Your task to perform on an android device: toggle data saver in the chrome app Image 0: 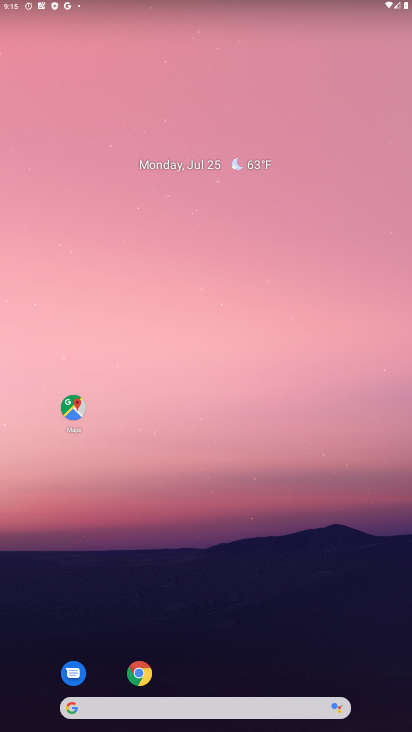
Step 0: drag from (212, 616) to (329, 17)
Your task to perform on an android device: toggle data saver in the chrome app Image 1: 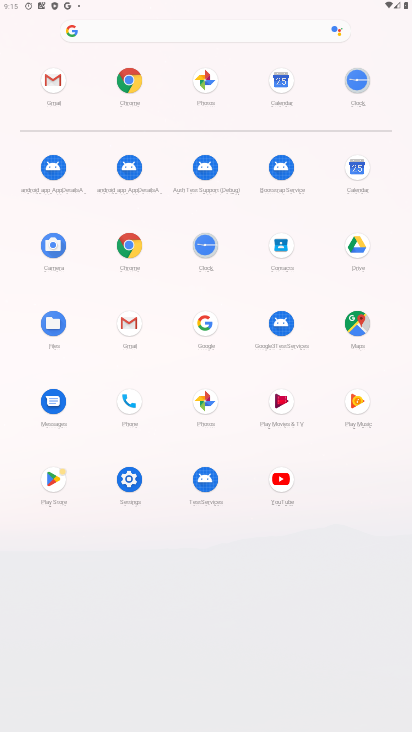
Step 1: click (123, 239)
Your task to perform on an android device: toggle data saver in the chrome app Image 2: 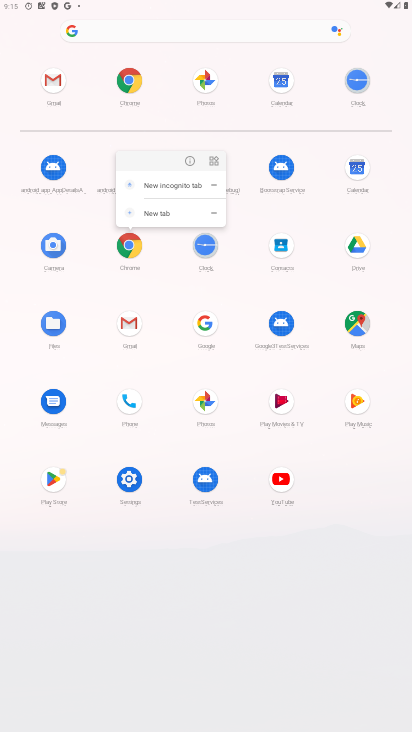
Step 2: click (187, 162)
Your task to perform on an android device: toggle data saver in the chrome app Image 3: 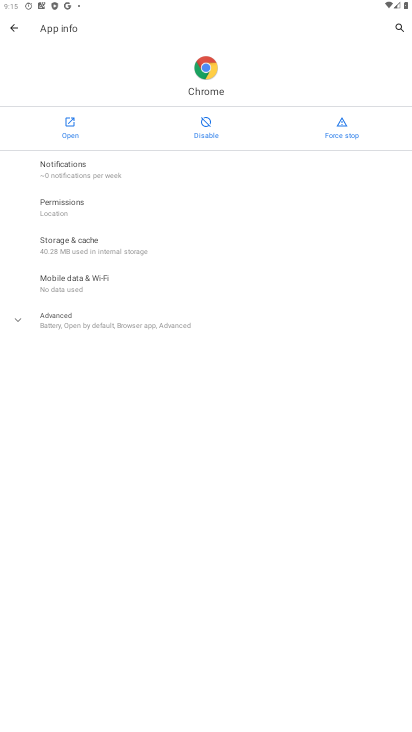
Step 3: click (60, 120)
Your task to perform on an android device: toggle data saver in the chrome app Image 4: 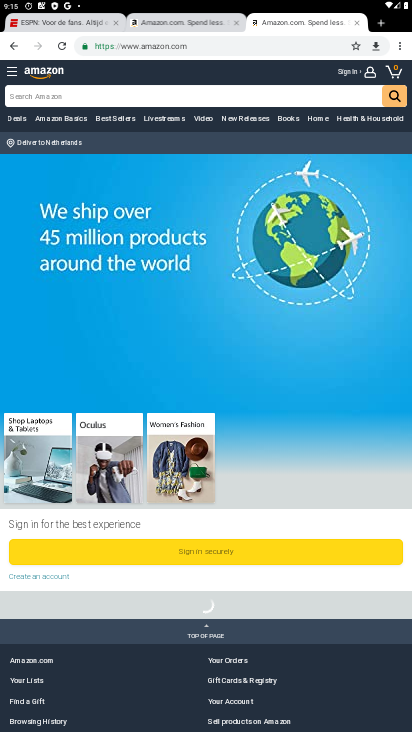
Step 4: drag from (238, 419) to (233, 139)
Your task to perform on an android device: toggle data saver in the chrome app Image 5: 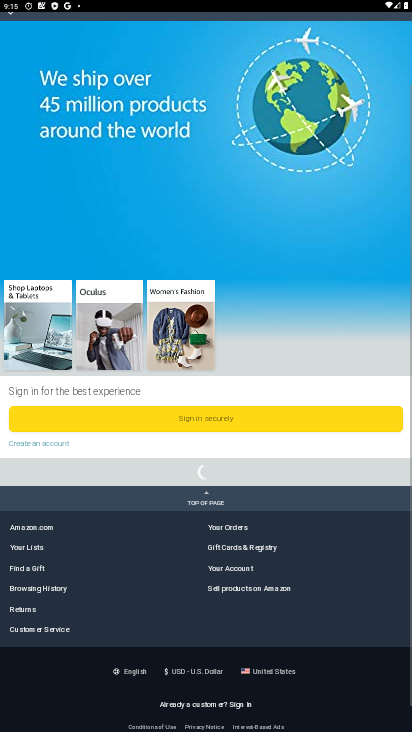
Step 5: drag from (190, 145) to (167, 435)
Your task to perform on an android device: toggle data saver in the chrome app Image 6: 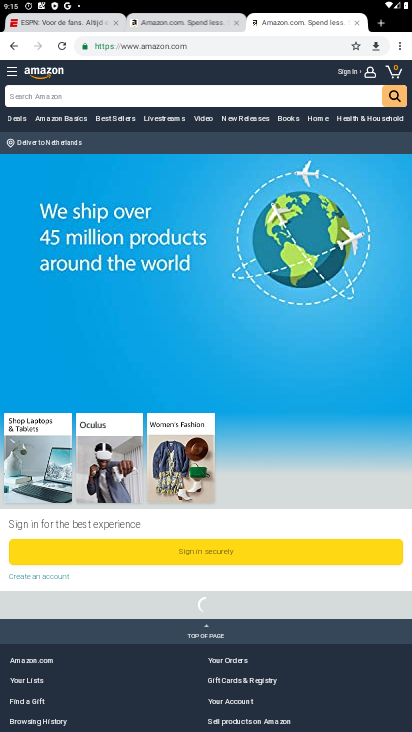
Step 6: drag from (221, 673) to (210, 210)
Your task to perform on an android device: toggle data saver in the chrome app Image 7: 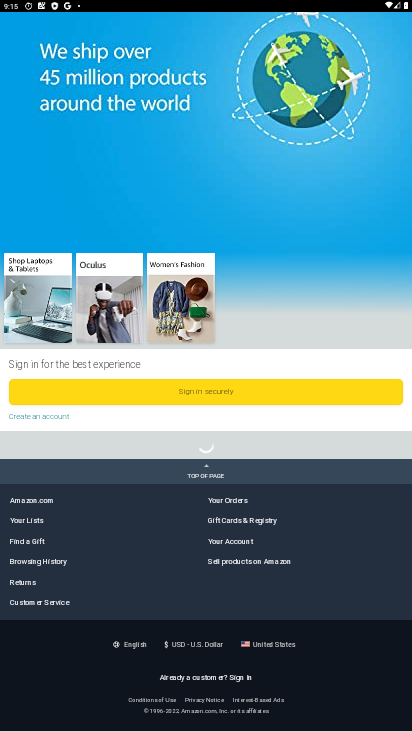
Step 7: drag from (200, 575) to (200, 195)
Your task to perform on an android device: toggle data saver in the chrome app Image 8: 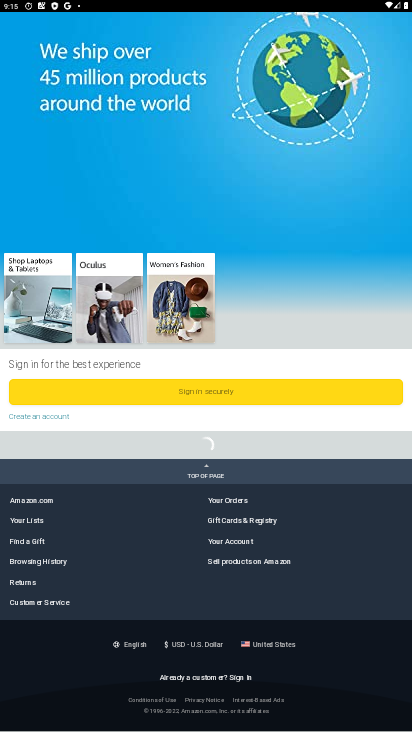
Step 8: drag from (202, 380) to (250, 703)
Your task to perform on an android device: toggle data saver in the chrome app Image 9: 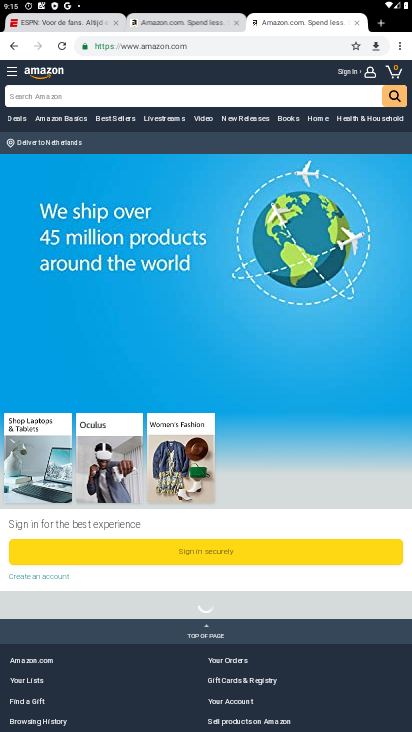
Step 9: drag from (397, 44) to (323, 309)
Your task to perform on an android device: toggle data saver in the chrome app Image 10: 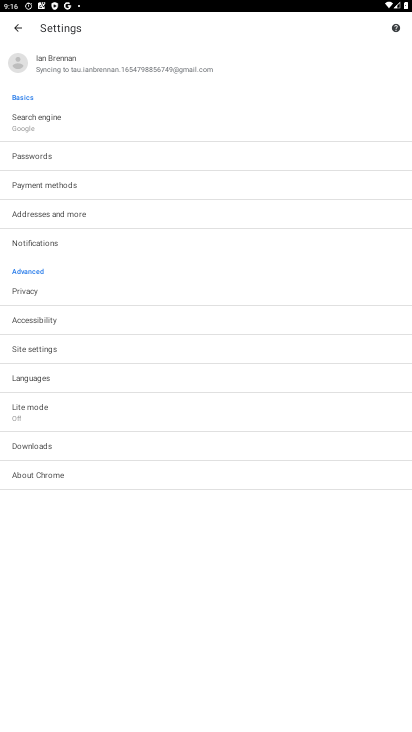
Step 10: click (73, 411)
Your task to perform on an android device: toggle data saver in the chrome app Image 11: 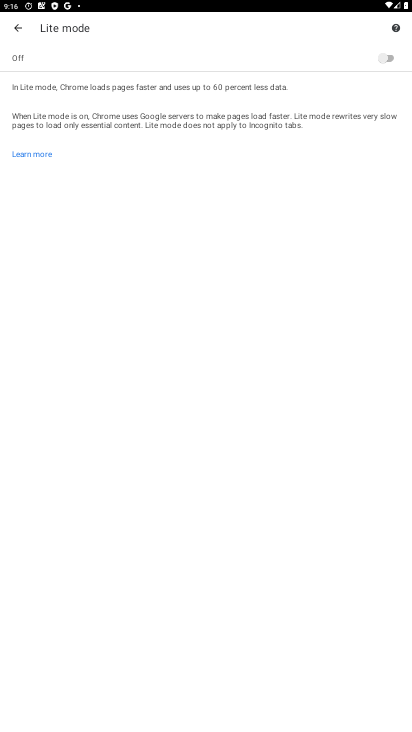
Step 11: click (353, 54)
Your task to perform on an android device: toggle data saver in the chrome app Image 12: 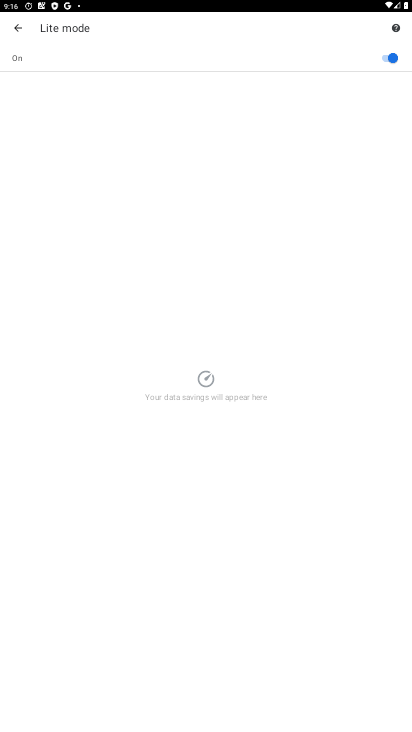
Step 12: task complete